Your task to perform on an android device: turn off priority inbox in the gmail app Image 0: 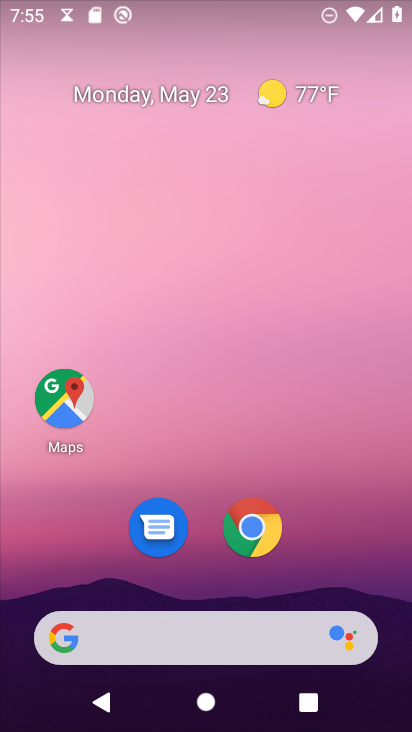
Step 0: press home button
Your task to perform on an android device: turn off priority inbox in the gmail app Image 1: 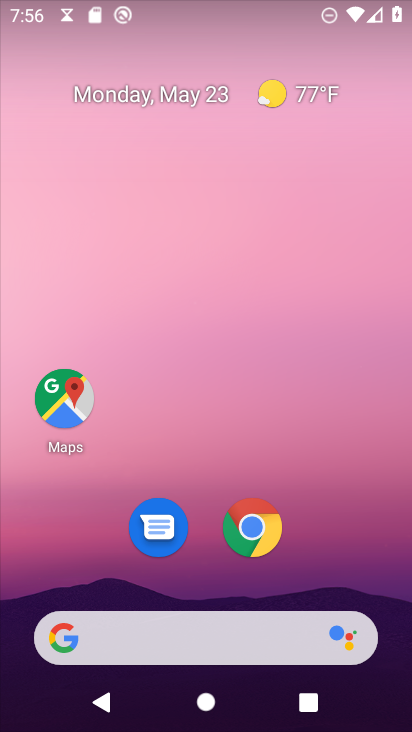
Step 1: drag from (188, 670) to (144, 173)
Your task to perform on an android device: turn off priority inbox in the gmail app Image 2: 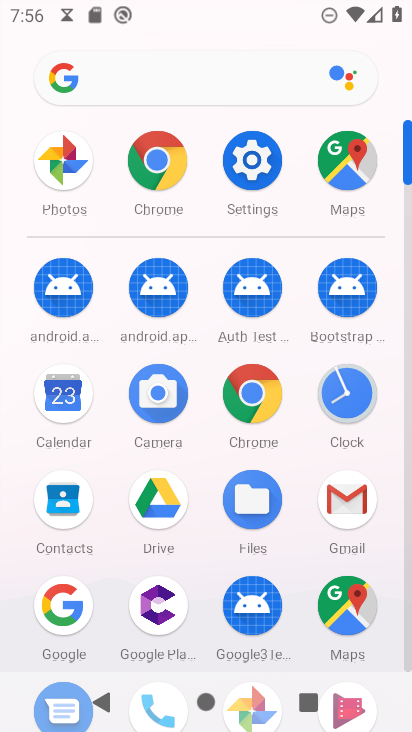
Step 2: click (345, 491)
Your task to perform on an android device: turn off priority inbox in the gmail app Image 3: 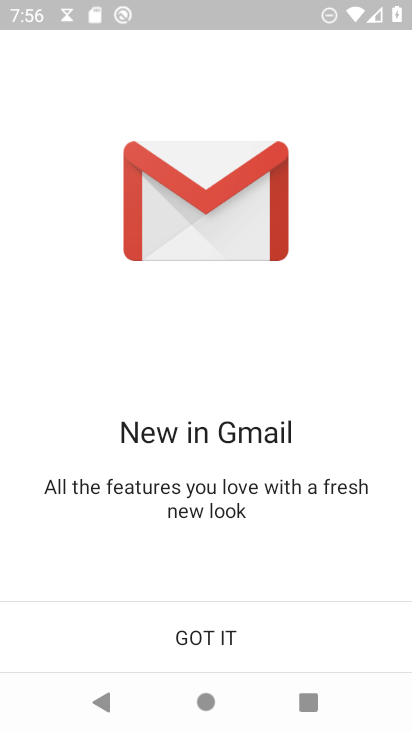
Step 3: click (273, 658)
Your task to perform on an android device: turn off priority inbox in the gmail app Image 4: 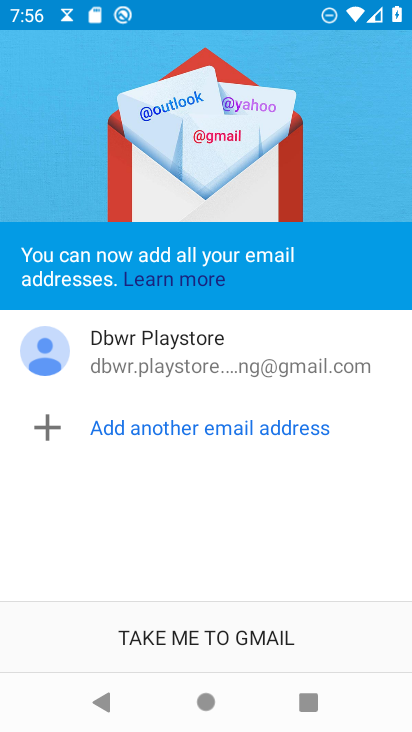
Step 4: click (283, 626)
Your task to perform on an android device: turn off priority inbox in the gmail app Image 5: 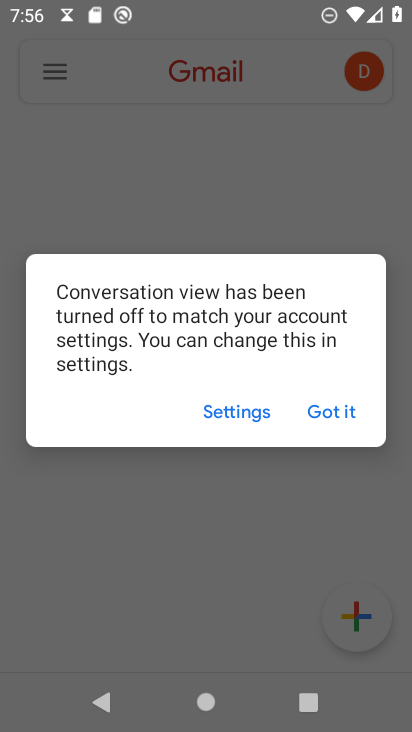
Step 5: click (334, 404)
Your task to perform on an android device: turn off priority inbox in the gmail app Image 6: 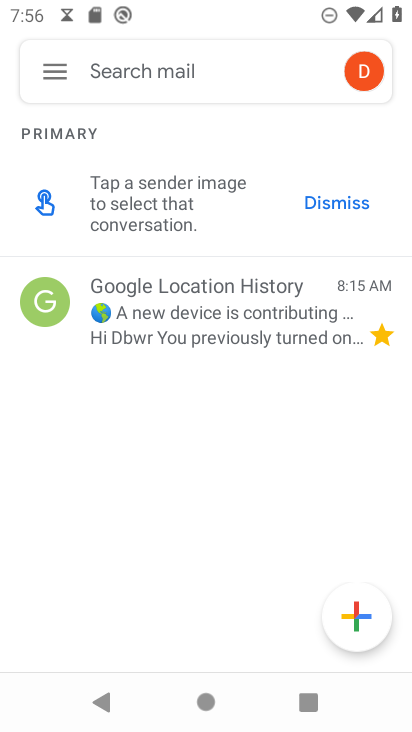
Step 6: click (50, 75)
Your task to perform on an android device: turn off priority inbox in the gmail app Image 7: 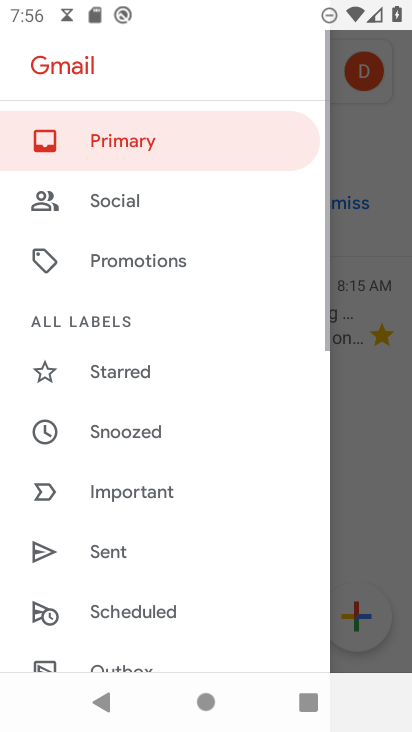
Step 7: drag from (193, 588) to (250, 308)
Your task to perform on an android device: turn off priority inbox in the gmail app Image 8: 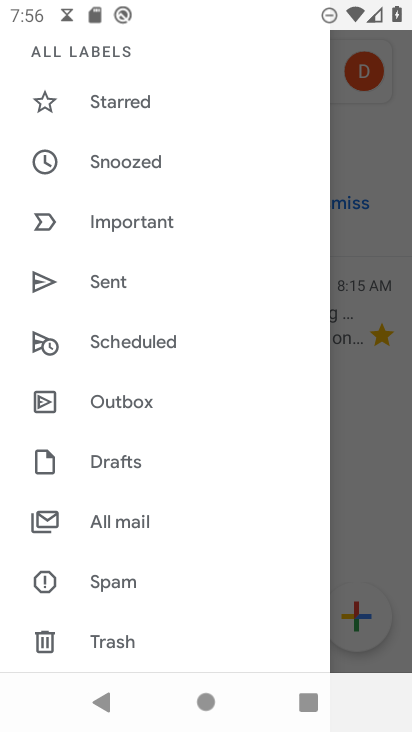
Step 8: drag from (160, 595) to (179, 321)
Your task to perform on an android device: turn off priority inbox in the gmail app Image 9: 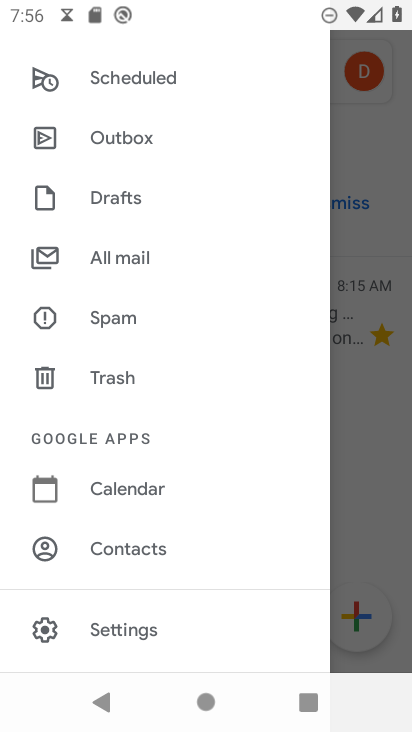
Step 9: click (121, 627)
Your task to perform on an android device: turn off priority inbox in the gmail app Image 10: 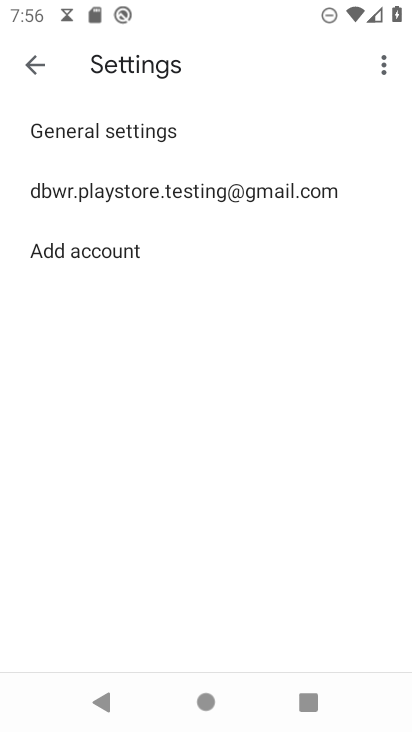
Step 10: click (117, 187)
Your task to perform on an android device: turn off priority inbox in the gmail app Image 11: 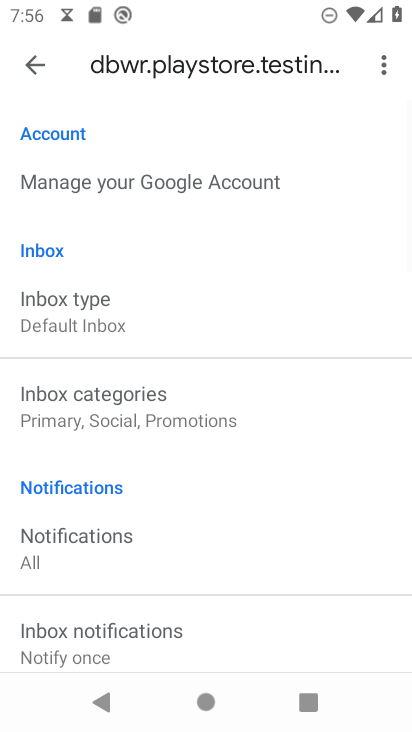
Step 11: click (153, 293)
Your task to perform on an android device: turn off priority inbox in the gmail app Image 12: 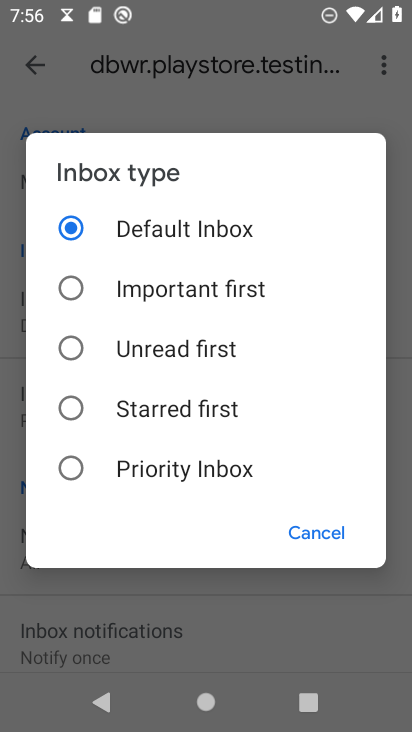
Step 12: task complete